Your task to perform on an android device: check storage Image 0: 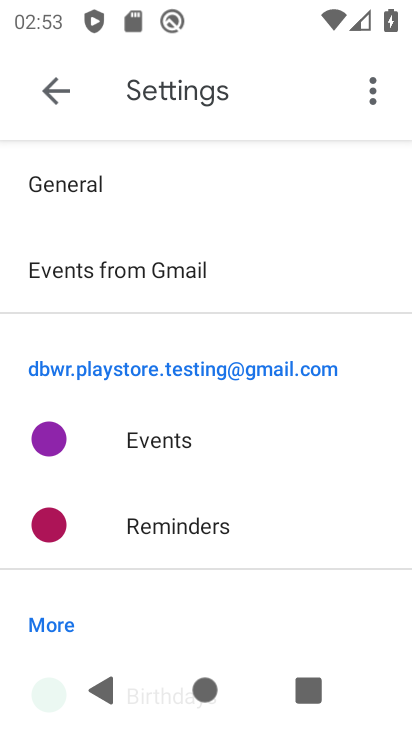
Step 0: press home button
Your task to perform on an android device: check storage Image 1: 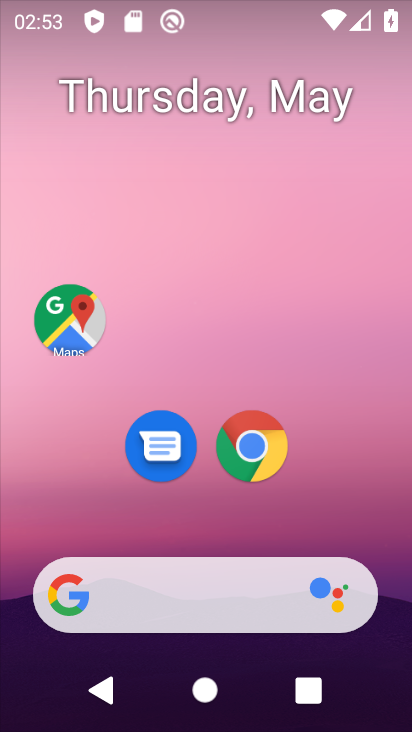
Step 1: drag from (347, 552) to (269, 32)
Your task to perform on an android device: check storage Image 2: 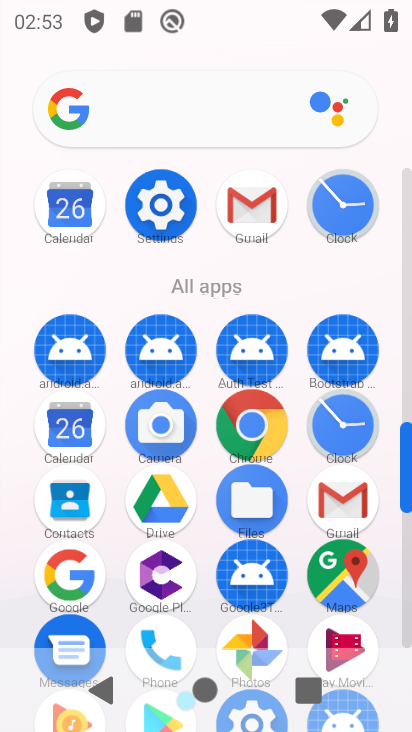
Step 2: click (160, 208)
Your task to perform on an android device: check storage Image 3: 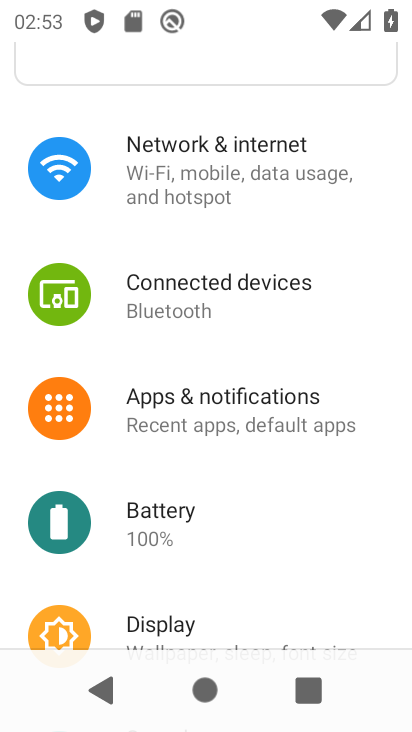
Step 3: drag from (276, 528) to (245, 205)
Your task to perform on an android device: check storage Image 4: 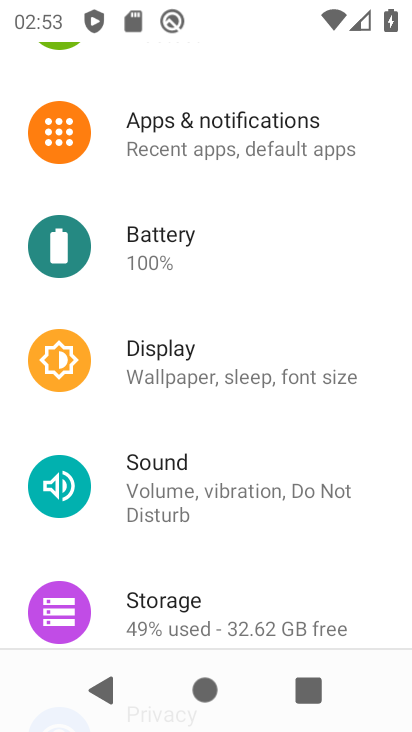
Step 4: click (163, 604)
Your task to perform on an android device: check storage Image 5: 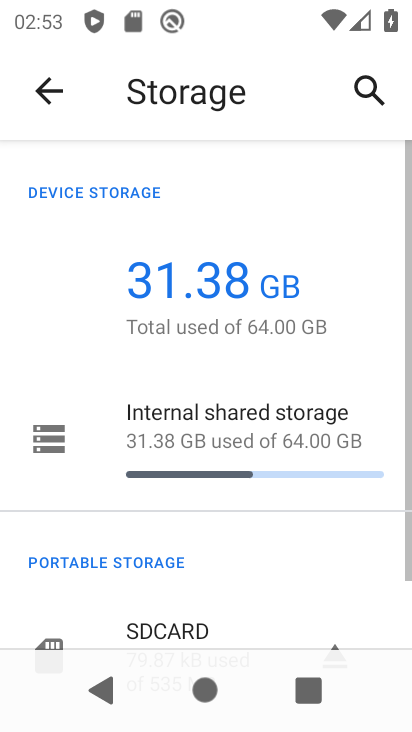
Step 5: drag from (213, 549) to (196, 229)
Your task to perform on an android device: check storage Image 6: 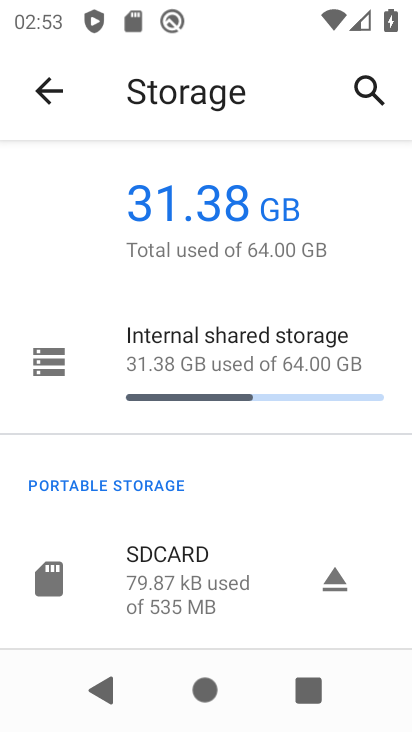
Step 6: click (204, 383)
Your task to perform on an android device: check storage Image 7: 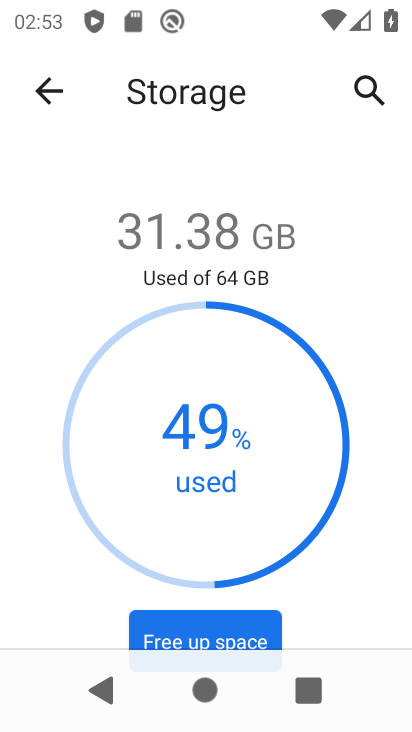
Step 7: task complete